Your task to perform on an android device: Open calendar and show me the second week of next month Image 0: 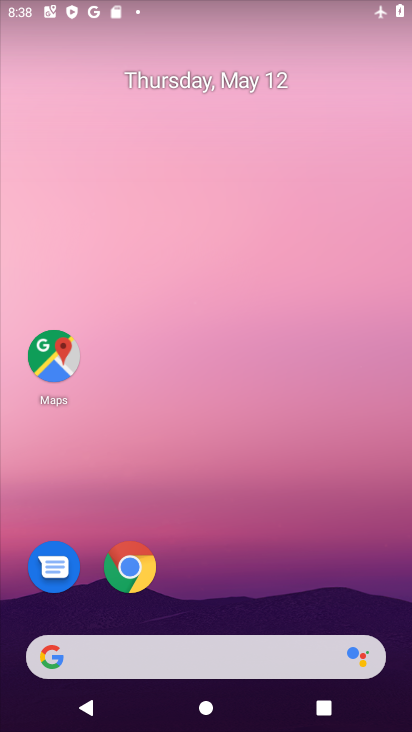
Step 0: drag from (131, 581) to (113, 215)
Your task to perform on an android device: Open calendar and show me the second week of next month Image 1: 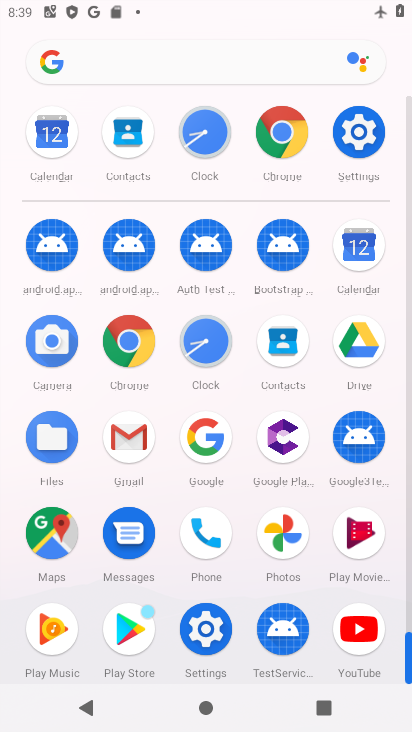
Step 1: drag from (164, 448) to (166, 363)
Your task to perform on an android device: Open calendar and show me the second week of next month Image 2: 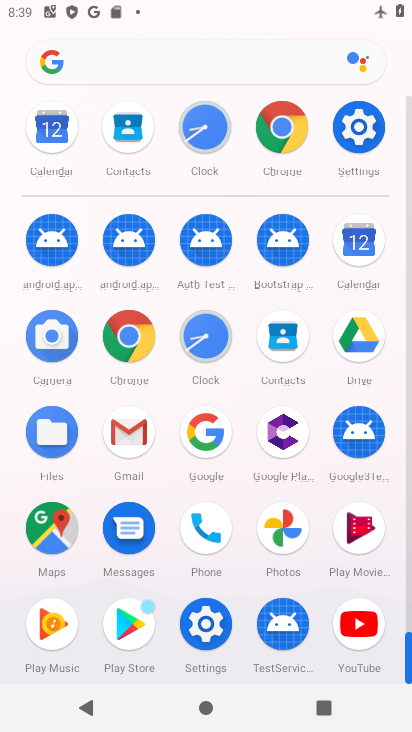
Step 2: click (371, 268)
Your task to perform on an android device: Open calendar and show me the second week of next month Image 3: 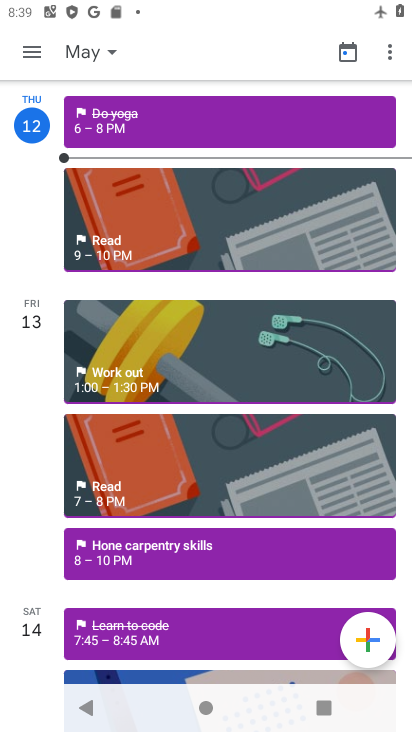
Step 3: click (108, 61)
Your task to perform on an android device: Open calendar and show me the second week of next month Image 4: 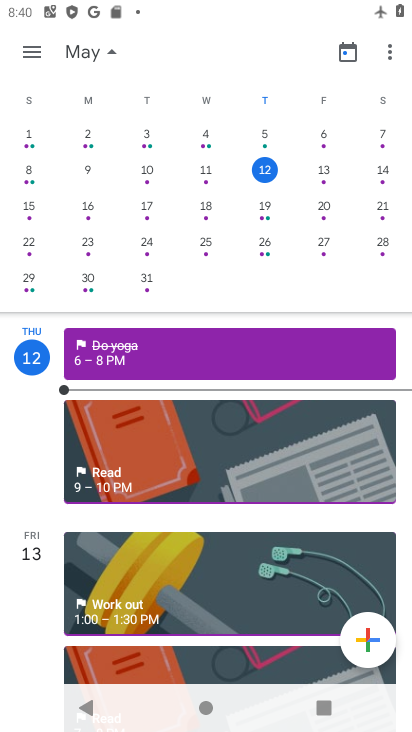
Step 4: drag from (344, 223) to (7, 182)
Your task to perform on an android device: Open calendar and show me the second week of next month Image 5: 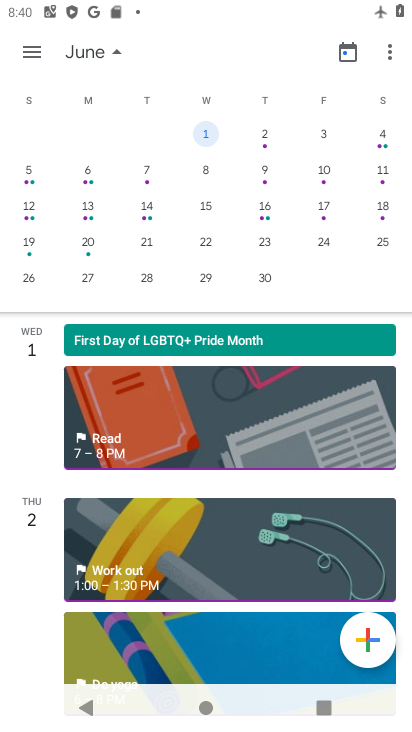
Step 5: click (34, 214)
Your task to perform on an android device: Open calendar and show me the second week of next month Image 6: 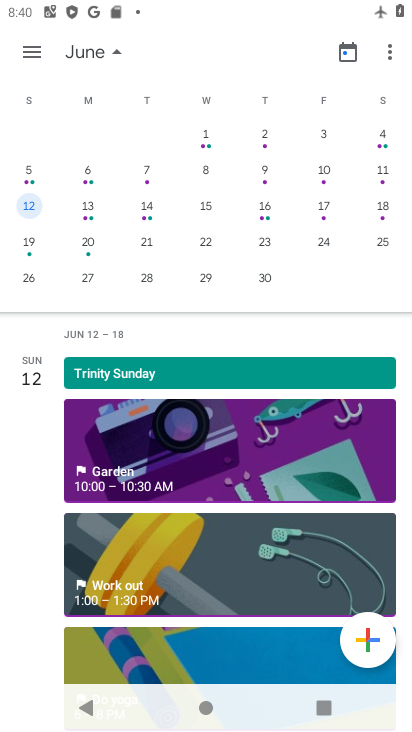
Step 6: task complete